Your task to perform on an android device: Go to Google maps Image 0: 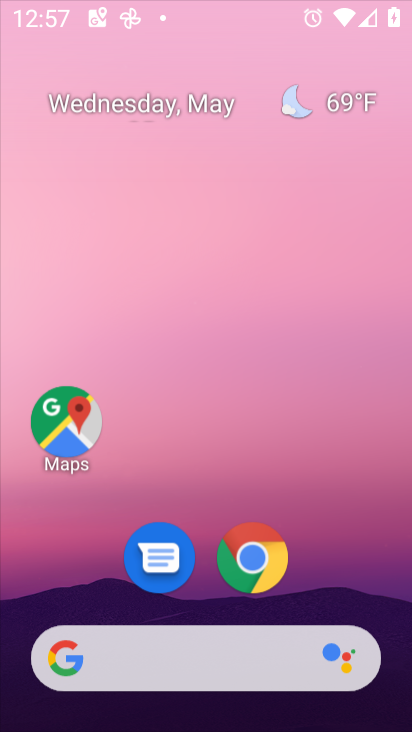
Step 0: click (256, 13)
Your task to perform on an android device: Go to Google maps Image 1: 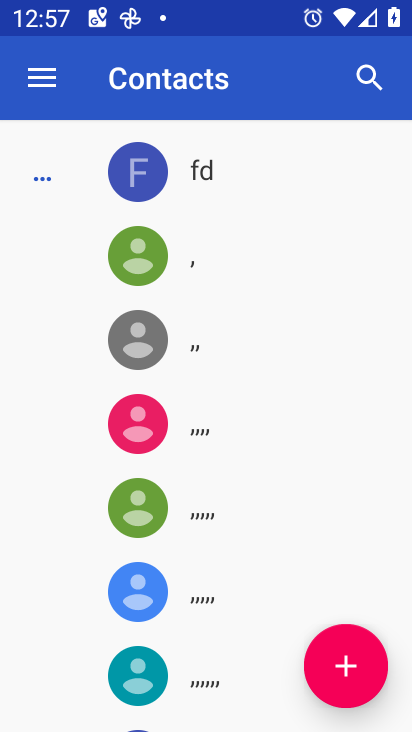
Step 1: press home button
Your task to perform on an android device: Go to Google maps Image 2: 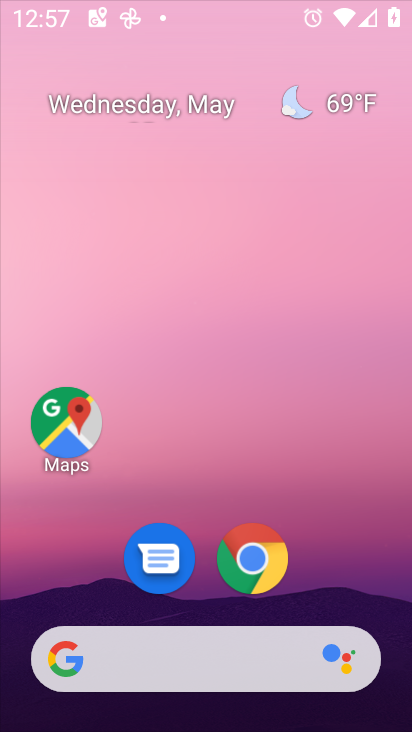
Step 2: drag from (397, 651) to (338, 63)
Your task to perform on an android device: Go to Google maps Image 3: 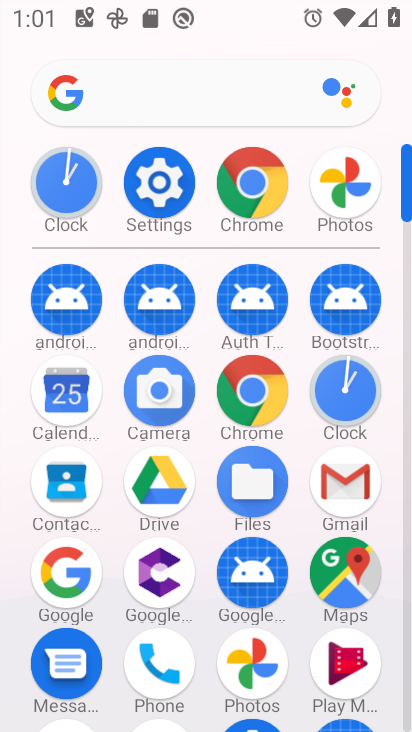
Step 3: click (357, 552)
Your task to perform on an android device: Go to Google maps Image 4: 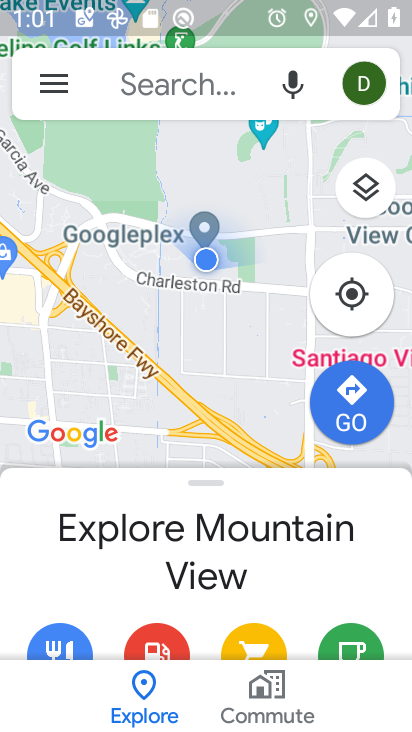
Step 4: task complete